Your task to perform on an android device: Open CNN.com Image 0: 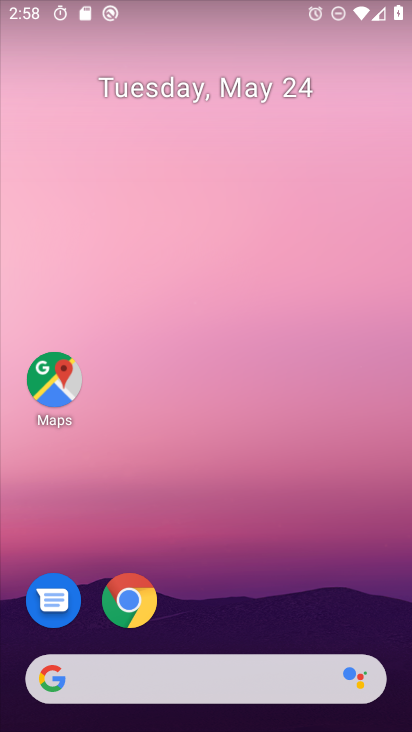
Step 0: drag from (262, 622) to (276, 204)
Your task to perform on an android device: Open CNN.com Image 1: 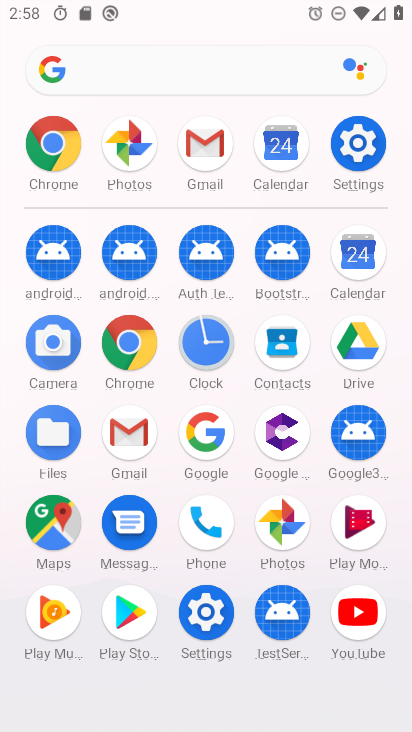
Step 1: click (58, 152)
Your task to perform on an android device: Open CNN.com Image 2: 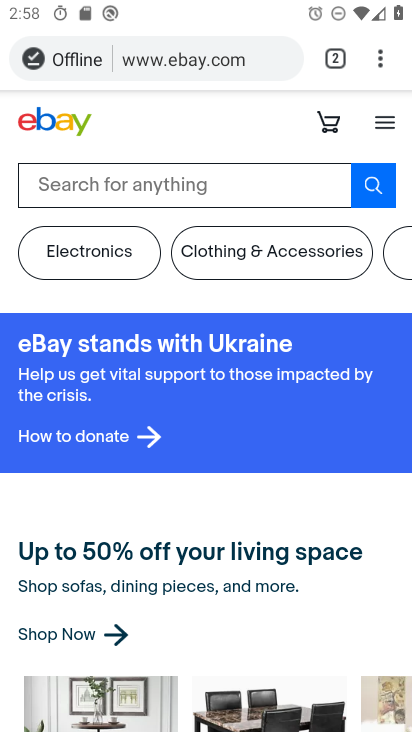
Step 2: click (184, 61)
Your task to perform on an android device: Open CNN.com Image 3: 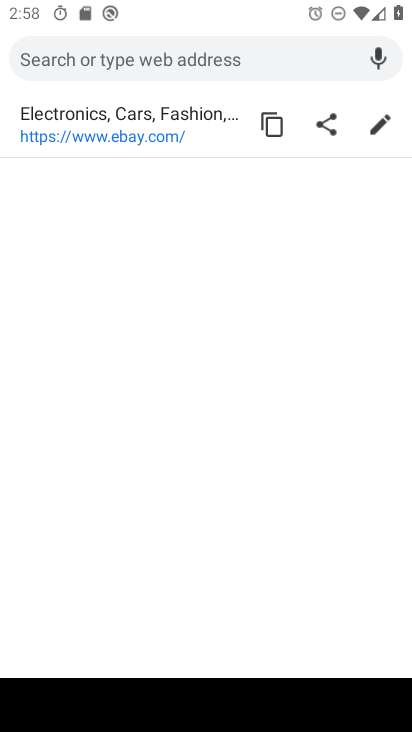
Step 3: type "cnn.com"
Your task to perform on an android device: Open CNN.com Image 4: 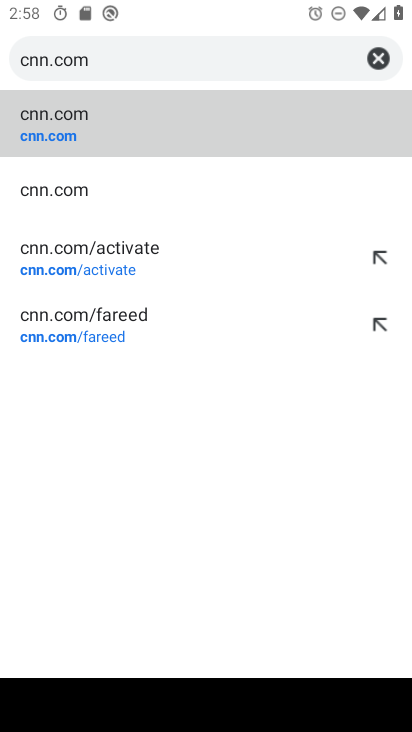
Step 4: click (45, 142)
Your task to perform on an android device: Open CNN.com Image 5: 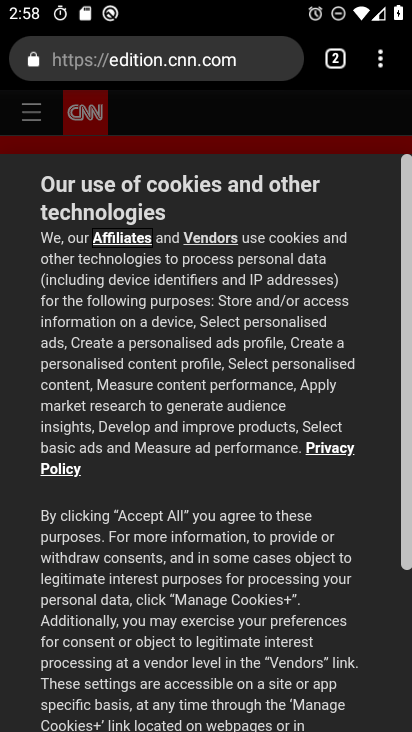
Step 5: task complete